Your task to perform on an android device: open device folders in google photos Image 0: 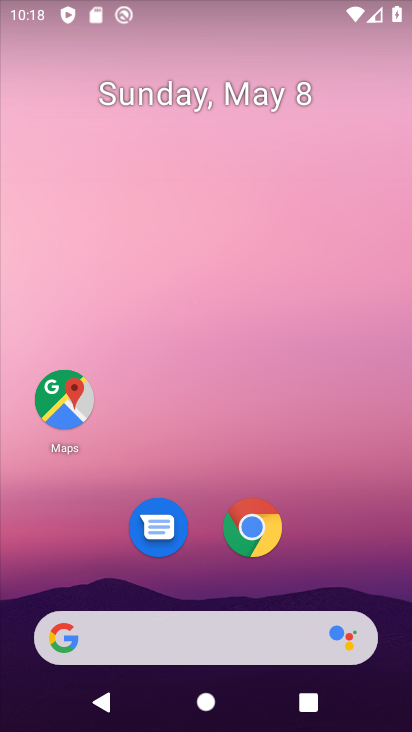
Step 0: drag from (291, 571) to (292, 106)
Your task to perform on an android device: open device folders in google photos Image 1: 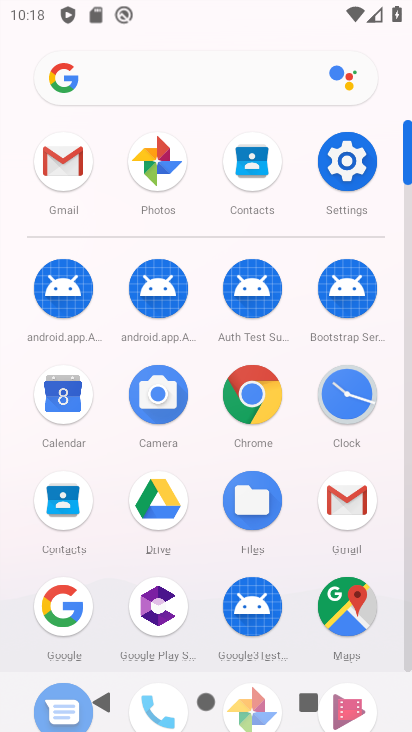
Step 1: click (166, 164)
Your task to perform on an android device: open device folders in google photos Image 2: 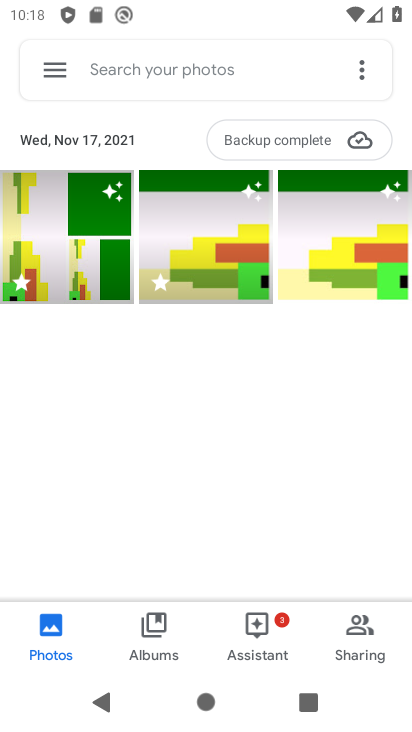
Step 2: click (65, 73)
Your task to perform on an android device: open device folders in google photos Image 3: 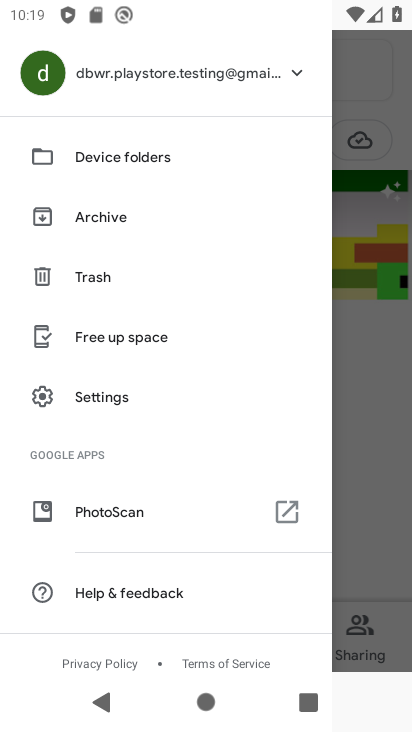
Step 3: click (126, 158)
Your task to perform on an android device: open device folders in google photos Image 4: 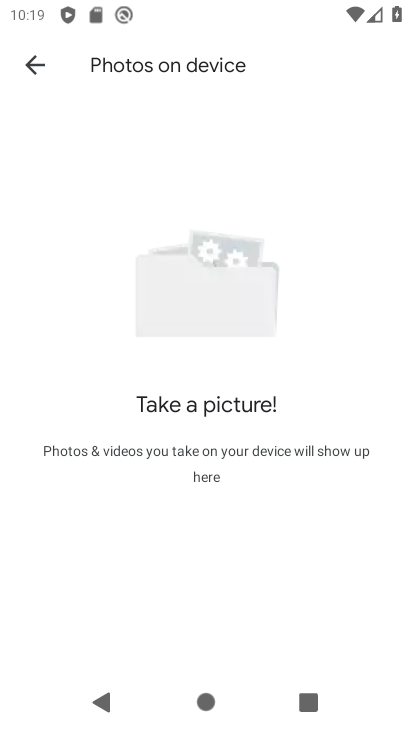
Step 4: task complete